Your task to perform on an android device: visit the assistant section in the google photos Image 0: 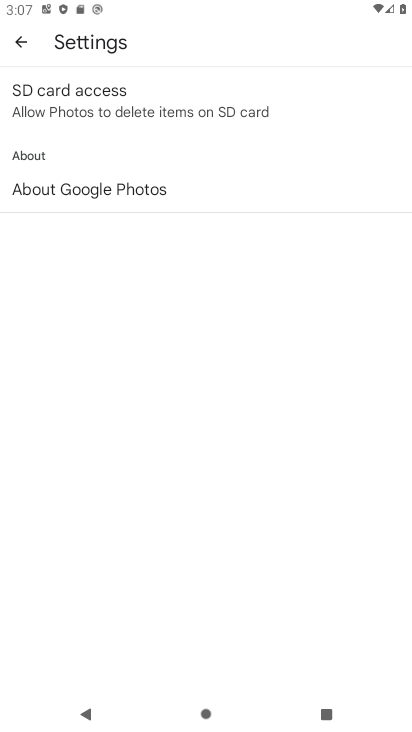
Step 0: press home button
Your task to perform on an android device: visit the assistant section in the google photos Image 1: 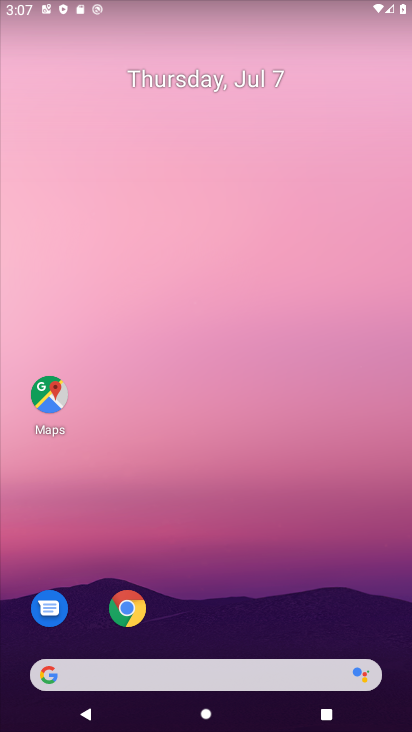
Step 1: drag from (382, 607) to (354, 113)
Your task to perform on an android device: visit the assistant section in the google photos Image 2: 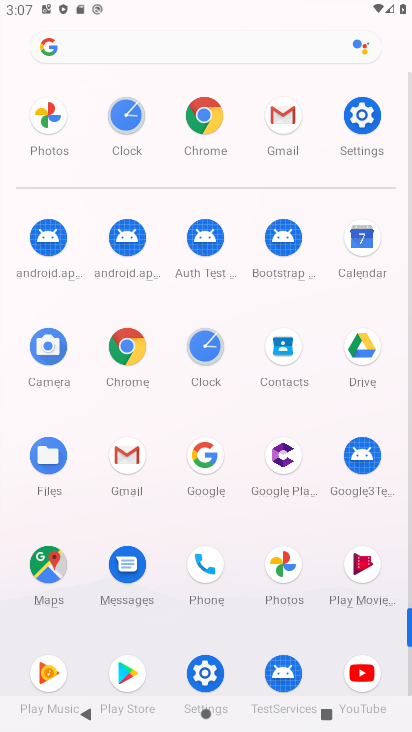
Step 2: click (285, 565)
Your task to perform on an android device: visit the assistant section in the google photos Image 3: 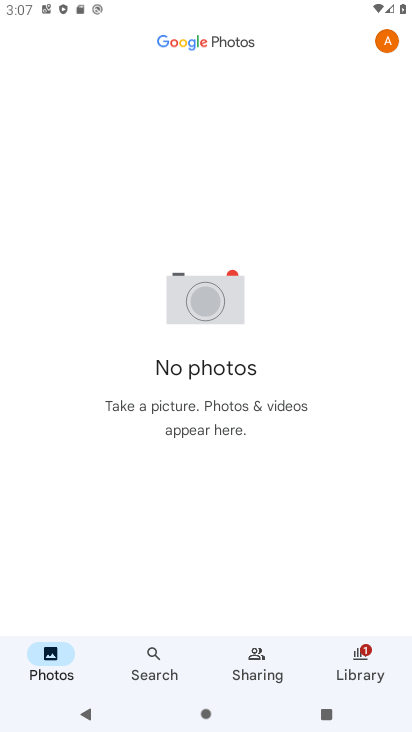
Step 3: click (362, 661)
Your task to perform on an android device: visit the assistant section in the google photos Image 4: 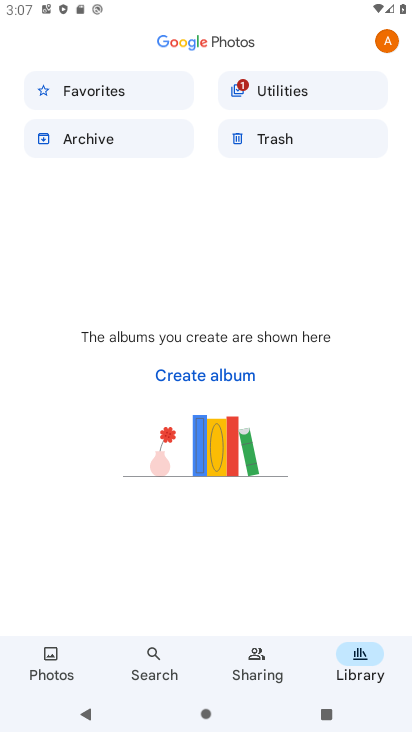
Step 4: drag from (359, 582) to (338, 240)
Your task to perform on an android device: visit the assistant section in the google photos Image 5: 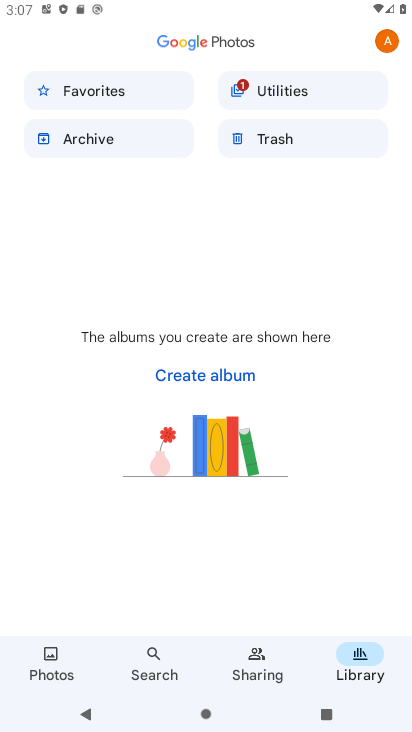
Step 5: click (386, 41)
Your task to perform on an android device: visit the assistant section in the google photos Image 6: 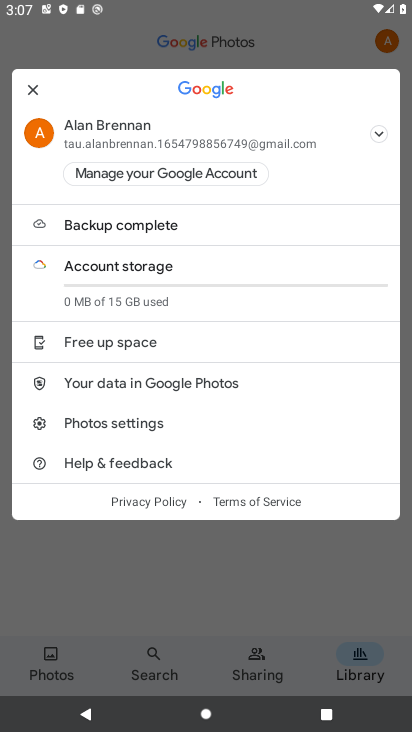
Step 6: task complete